Your task to perform on an android device: Go to location settings Image 0: 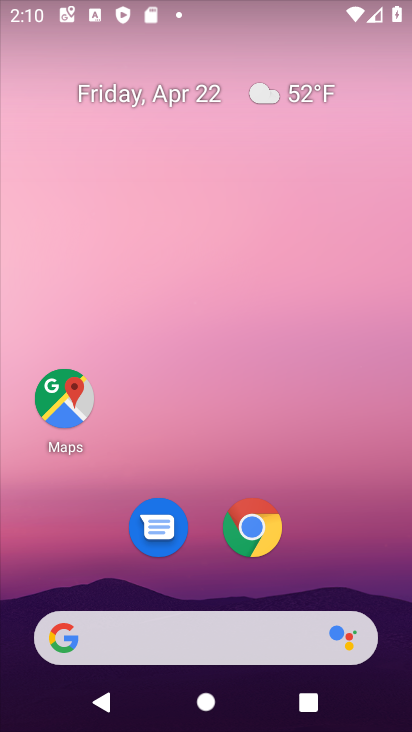
Step 0: drag from (290, 412) to (210, 32)
Your task to perform on an android device: Go to location settings Image 1: 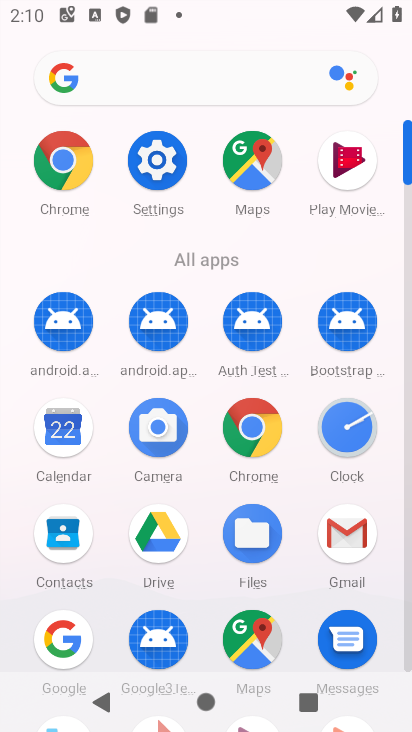
Step 1: click (156, 161)
Your task to perform on an android device: Go to location settings Image 2: 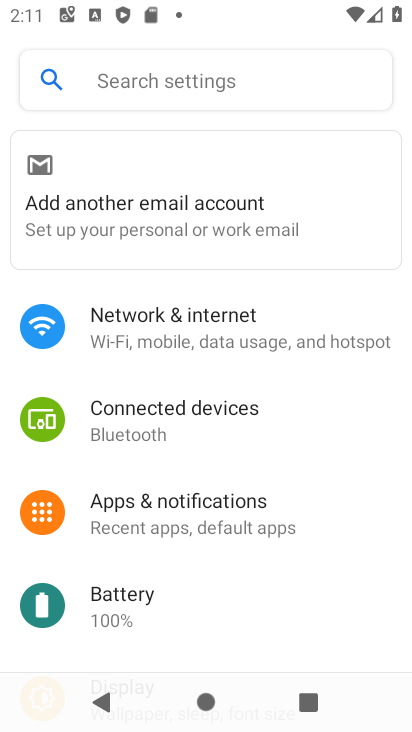
Step 2: drag from (252, 529) to (237, 0)
Your task to perform on an android device: Go to location settings Image 3: 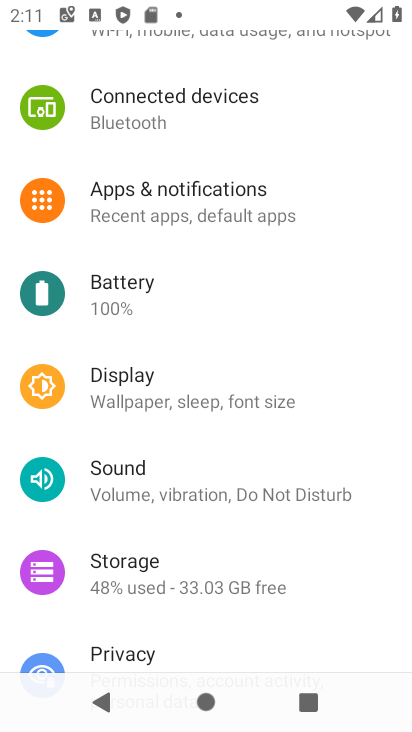
Step 3: drag from (241, 442) to (141, 0)
Your task to perform on an android device: Go to location settings Image 4: 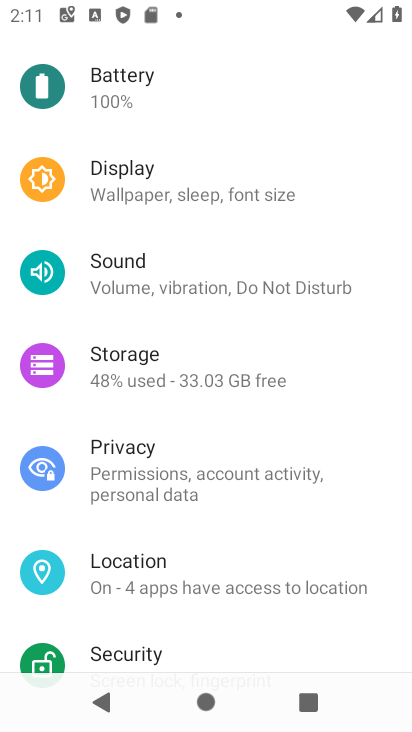
Step 4: drag from (222, 410) to (185, 132)
Your task to perform on an android device: Go to location settings Image 5: 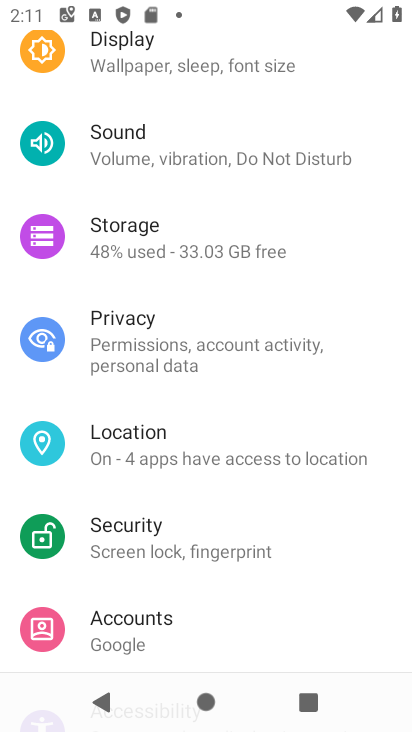
Step 5: click (183, 442)
Your task to perform on an android device: Go to location settings Image 6: 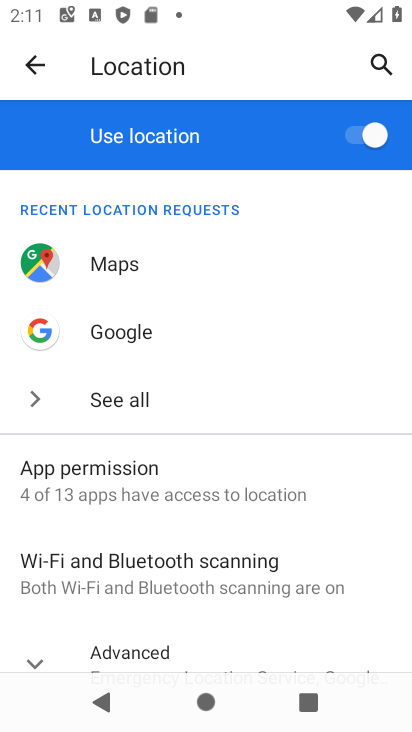
Step 6: task complete